Your task to perform on an android device: Open Yahoo.com Image 0: 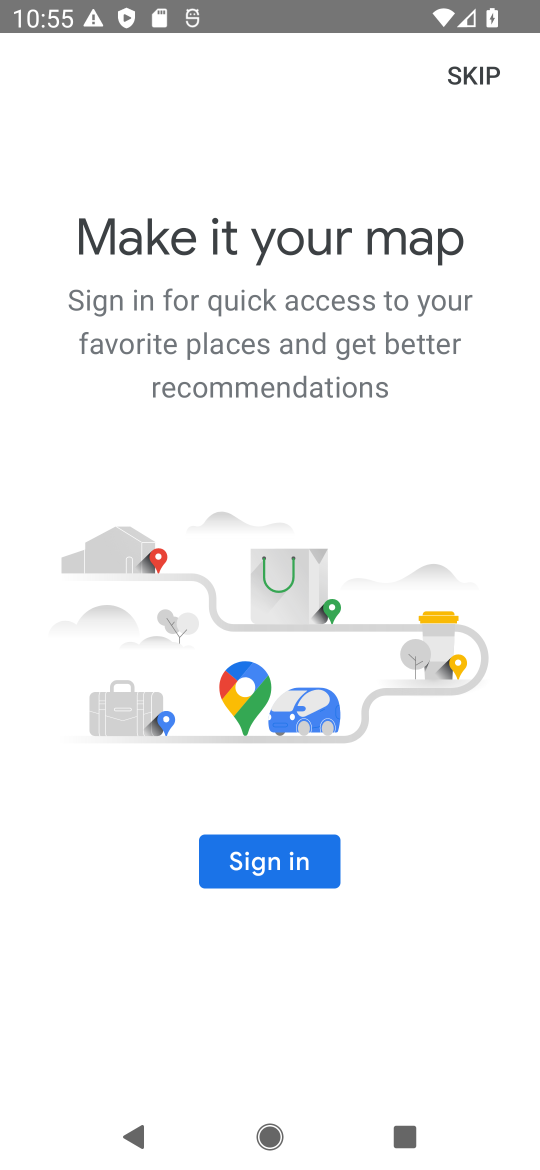
Step 0: press back button
Your task to perform on an android device: Open Yahoo.com Image 1: 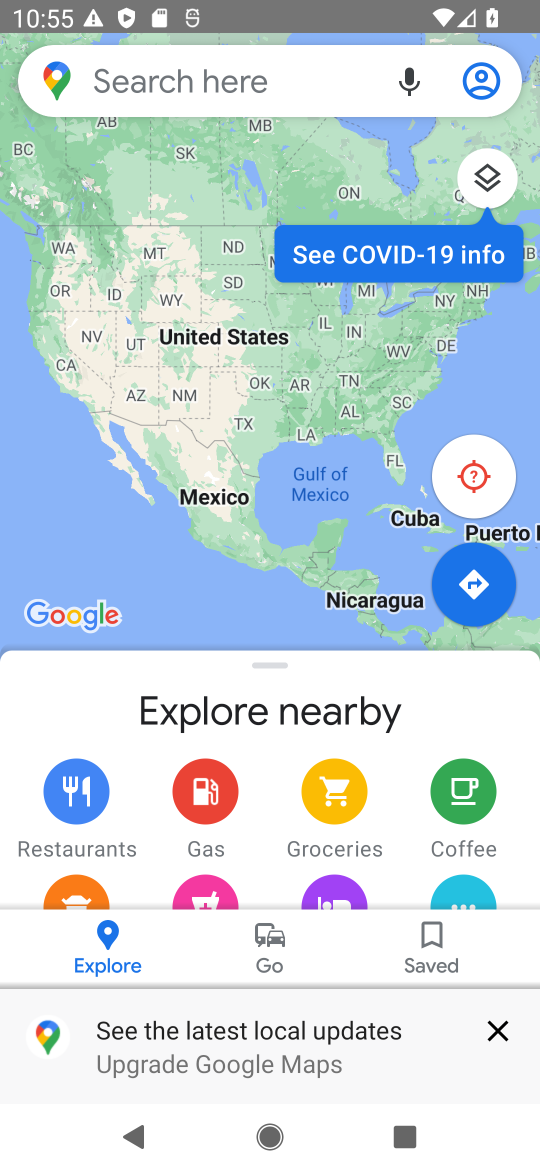
Step 1: press home button
Your task to perform on an android device: Open Yahoo.com Image 2: 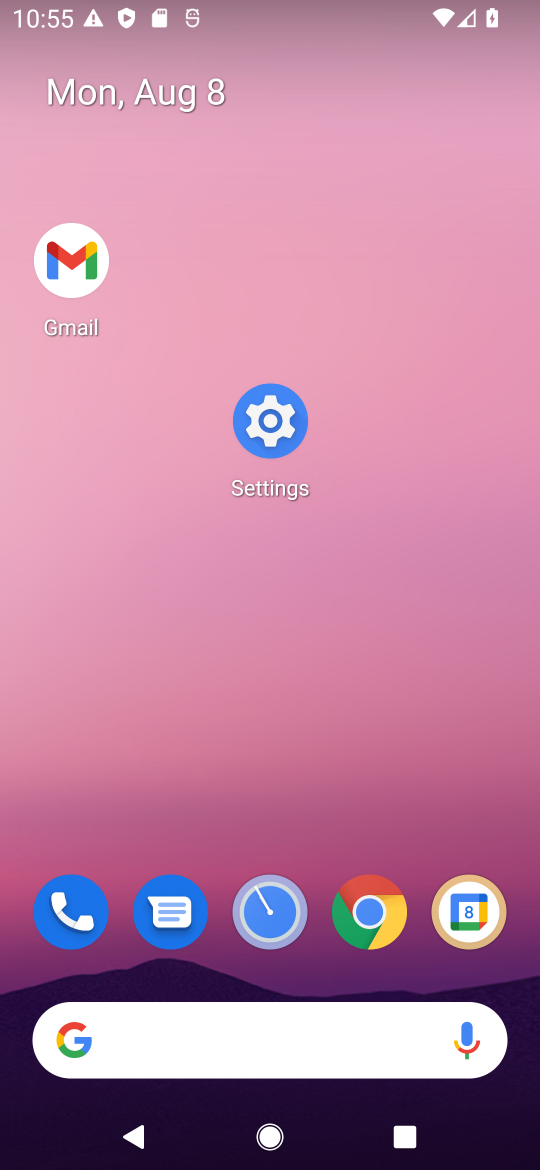
Step 2: click (351, 903)
Your task to perform on an android device: Open Yahoo.com Image 3: 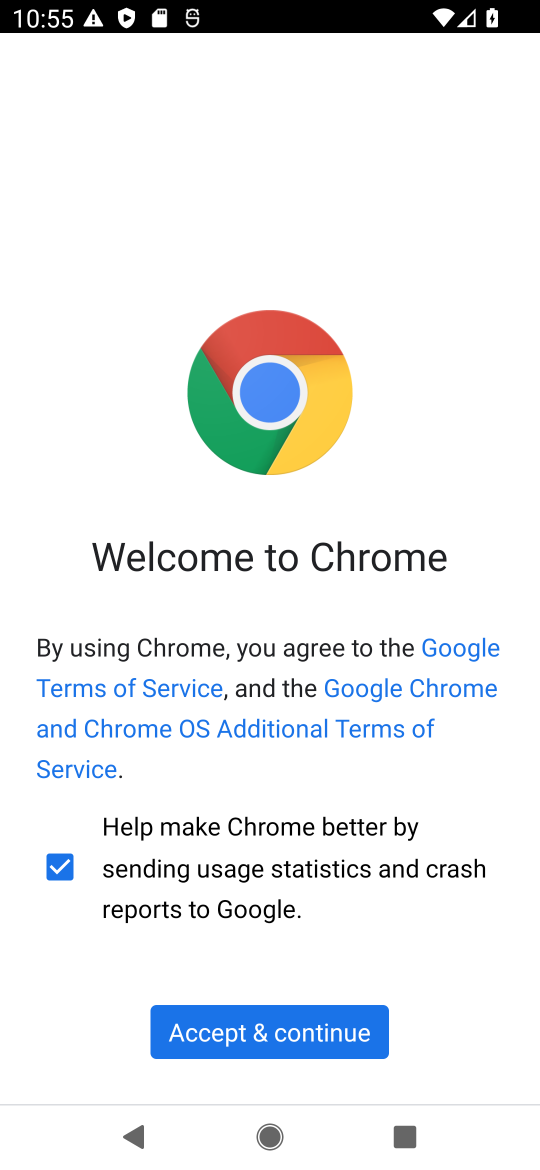
Step 3: click (200, 1014)
Your task to perform on an android device: Open Yahoo.com Image 4: 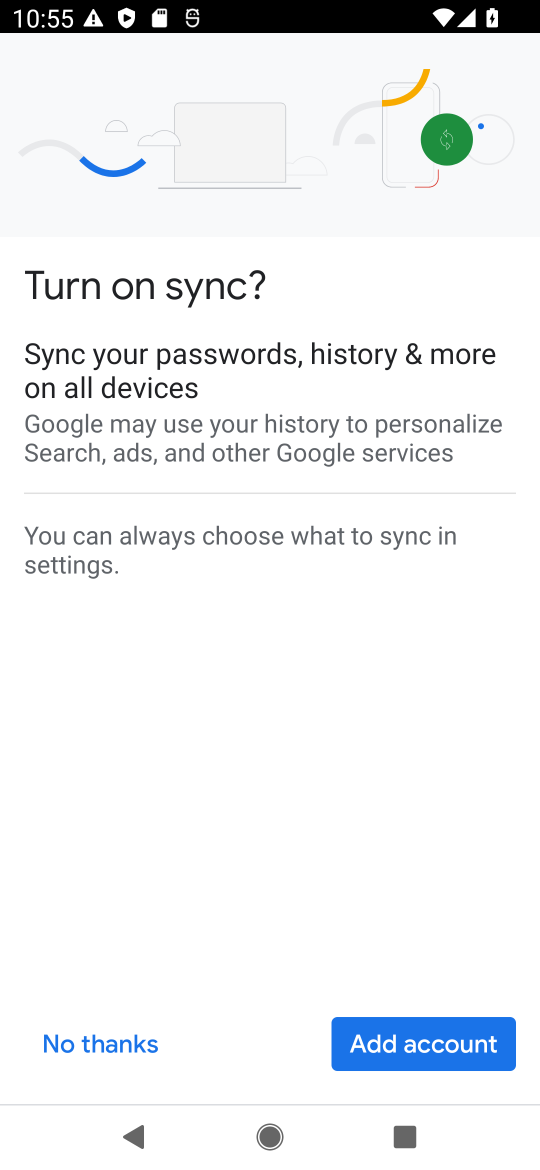
Step 4: click (118, 1058)
Your task to perform on an android device: Open Yahoo.com Image 5: 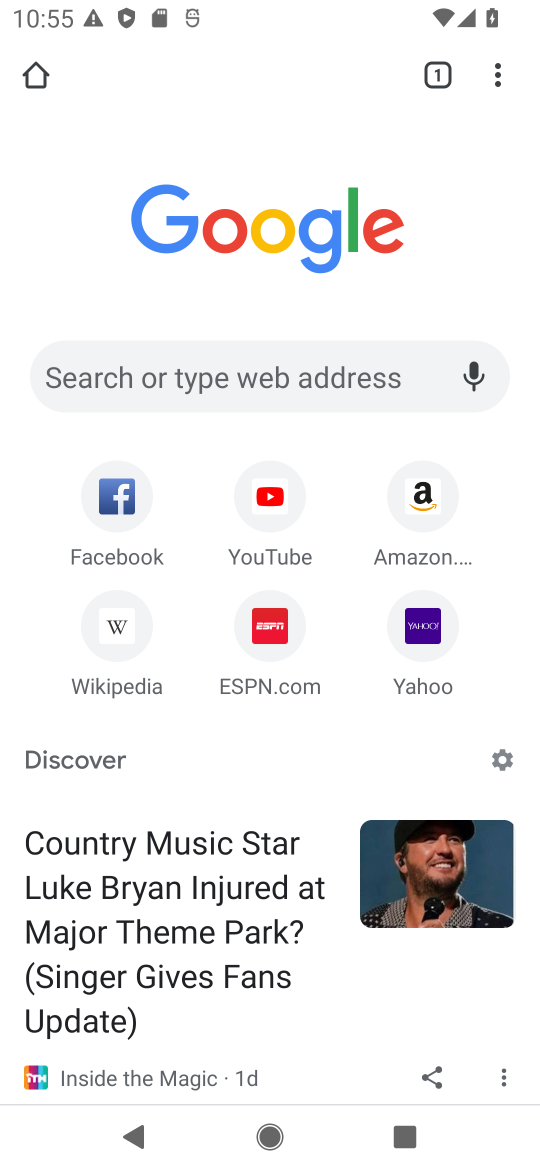
Step 5: click (424, 621)
Your task to perform on an android device: Open Yahoo.com Image 6: 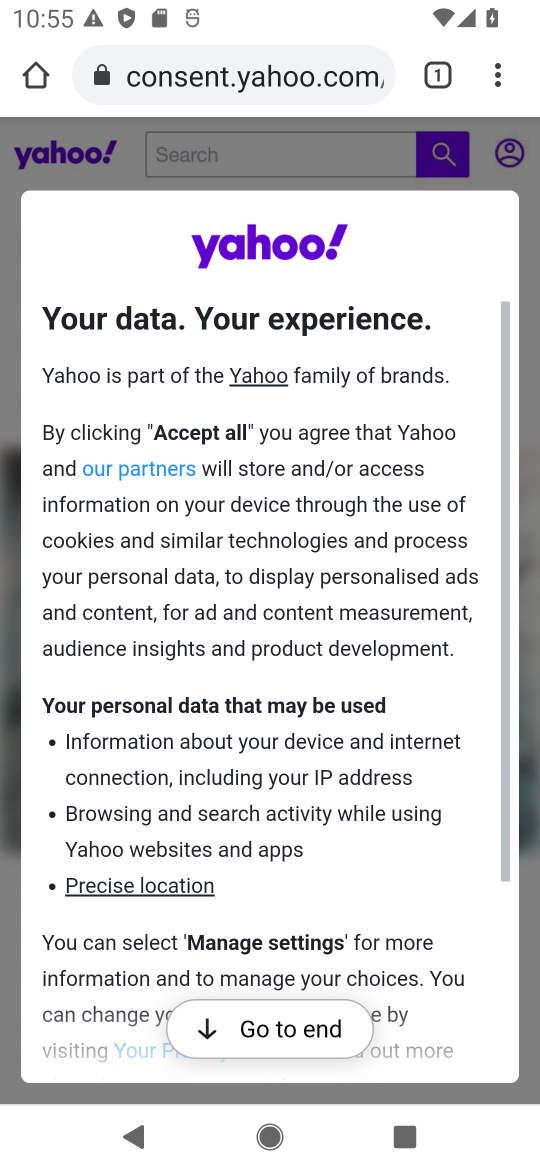
Step 6: task complete